Your task to perform on an android device: add a contact Image 0: 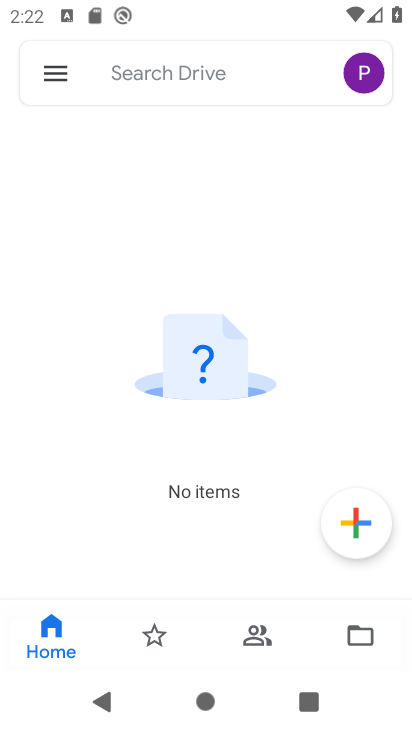
Step 0: press home button
Your task to perform on an android device: add a contact Image 1: 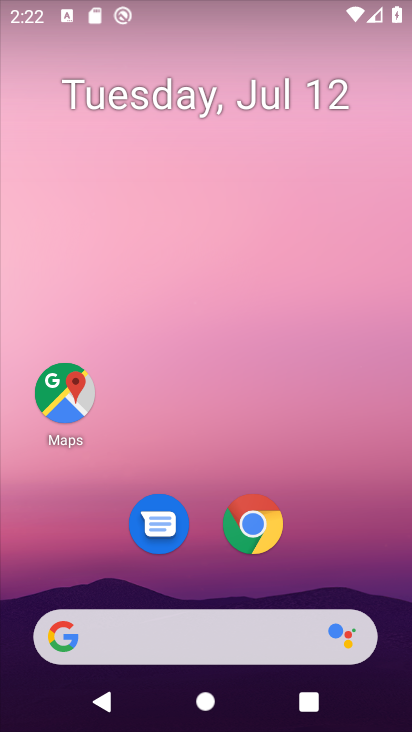
Step 1: drag from (239, 475) to (261, 2)
Your task to perform on an android device: add a contact Image 2: 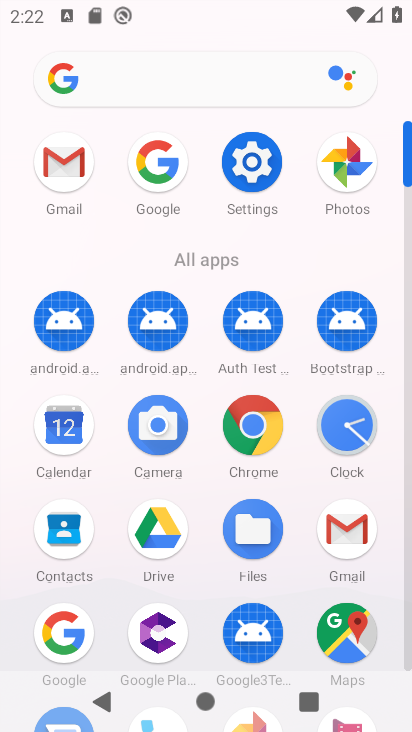
Step 2: click (65, 540)
Your task to perform on an android device: add a contact Image 3: 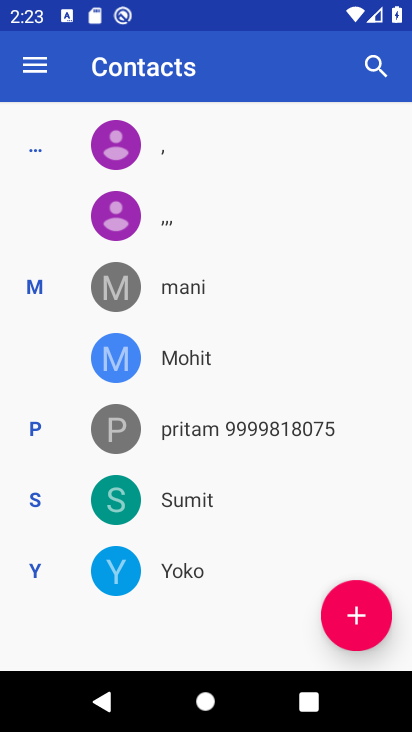
Step 3: click (357, 607)
Your task to perform on an android device: add a contact Image 4: 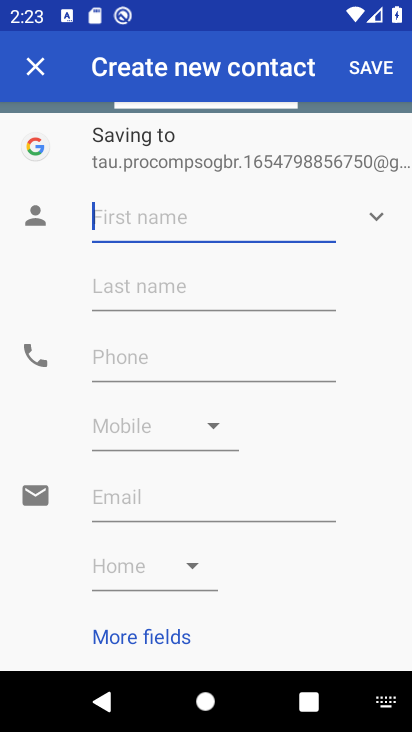
Step 4: type "Om Namah Shivay"
Your task to perform on an android device: add a contact Image 5: 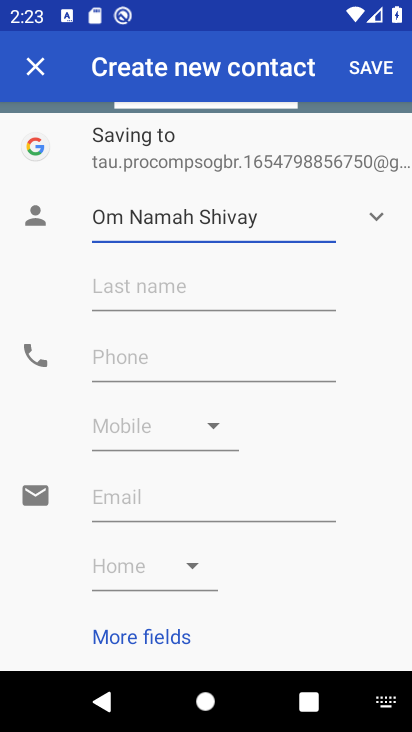
Step 5: click (209, 366)
Your task to perform on an android device: add a contact Image 6: 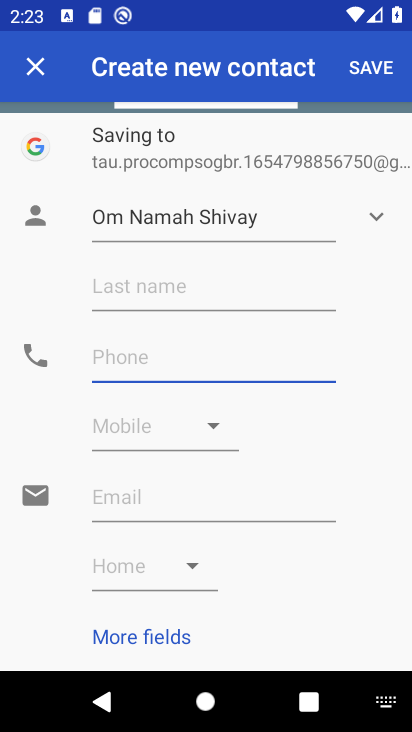
Step 6: type "9999775533"
Your task to perform on an android device: add a contact Image 7: 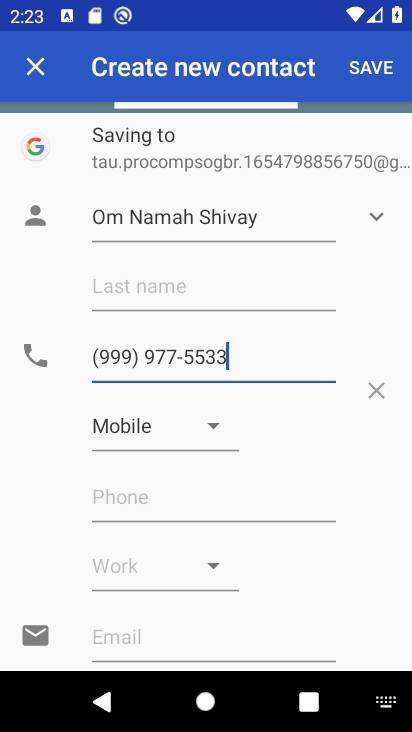
Step 7: click (361, 69)
Your task to perform on an android device: add a contact Image 8: 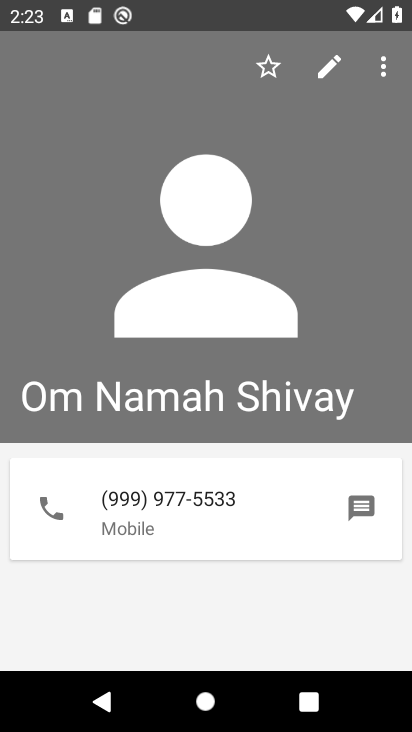
Step 8: task complete